Your task to perform on an android device: check storage Image 0: 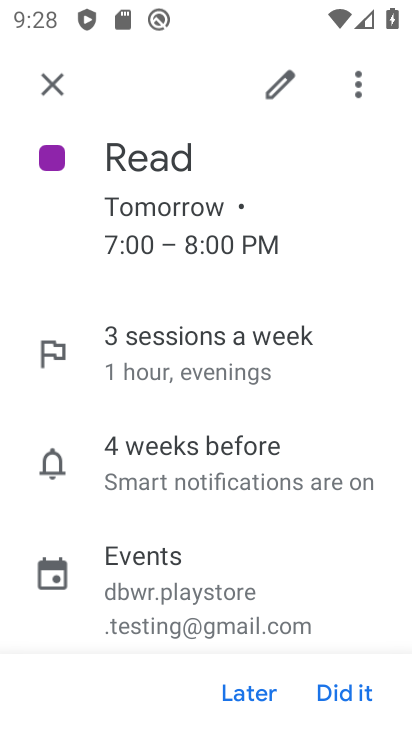
Step 0: press home button
Your task to perform on an android device: check storage Image 1: 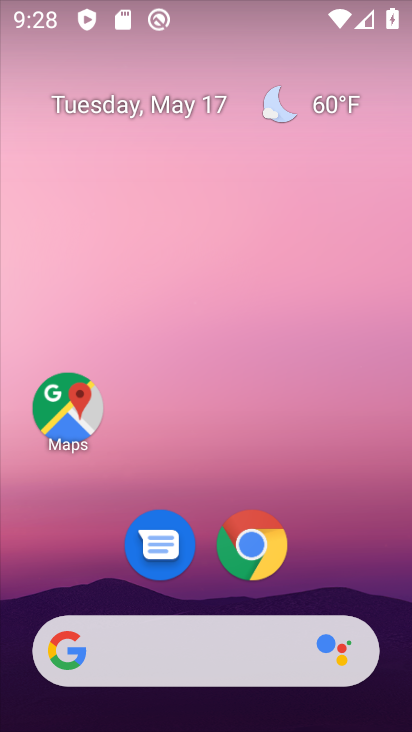
Step 1: drag from (205, 610) to (205, 273)
Your task to perform on an android device: check storage Image 2: 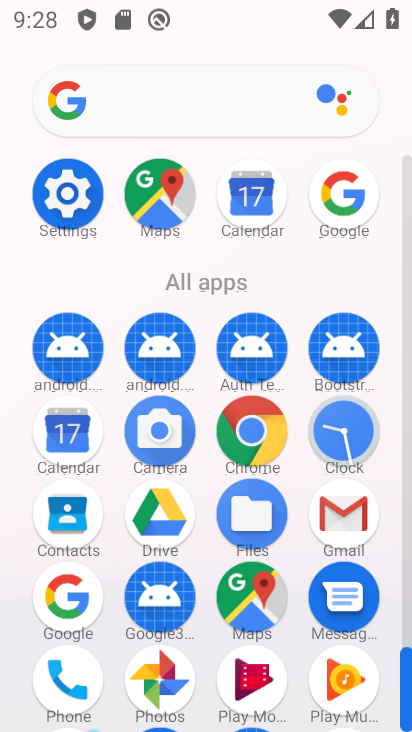
Step 2: click (58, 200)
Your task to perform on an android device: check storage Image 3: 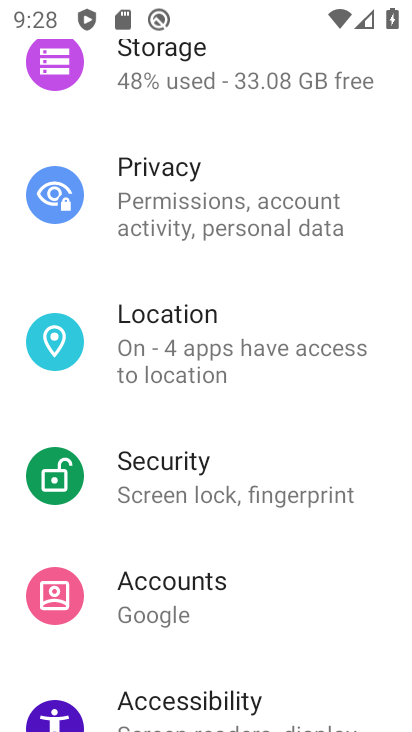
Step 3: click (201, 68)
Your task to perform on an android device: check storage Image 4: 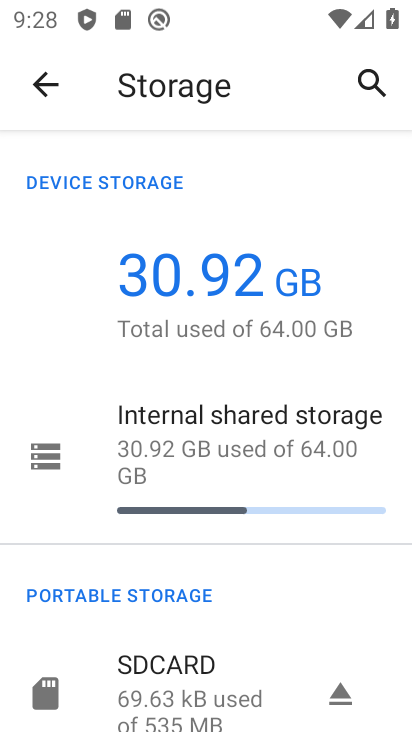
Step 4: task complete